Your task to perform on an android device: Open accessibility settings Image 0: 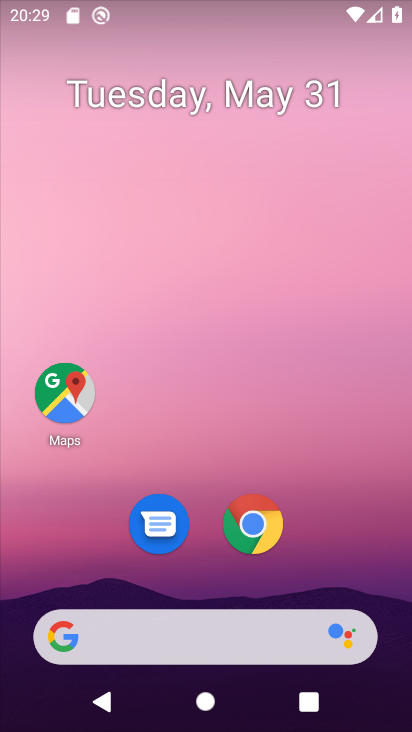
Step 0: drag from (347, 500) to (317, 0)
Your task to perform on an android device: Open accessibility settings Image 1: 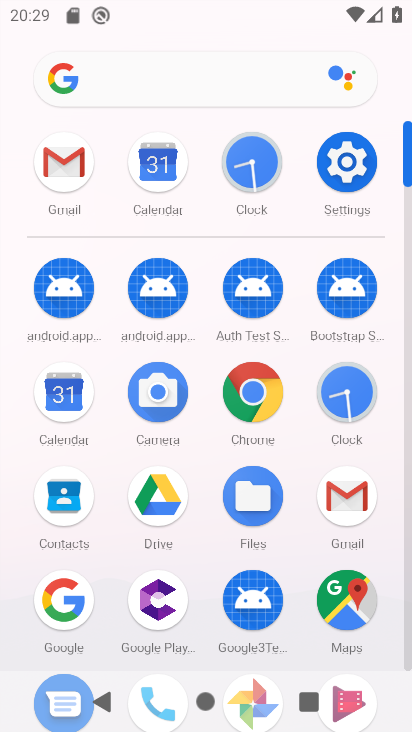
Step 1: click (354, 159)
Your task to perform on an android device: Open accessibility settings Image 2: 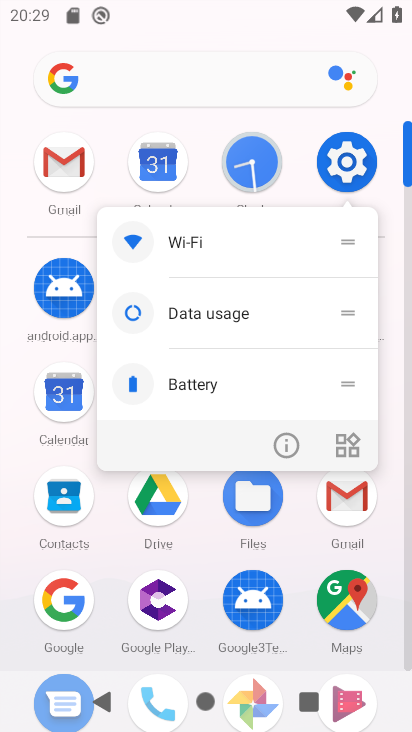
Step 2: click (354, 159)
Your task to perform on an android device: Open accessibility settings Image 3: 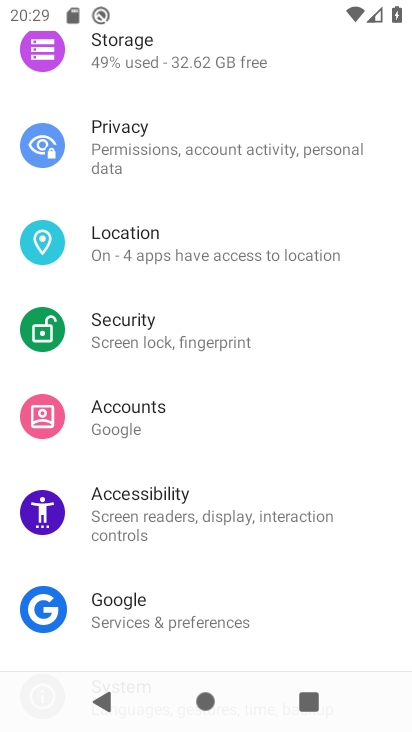
Step 3: click (184, 492)
Your task to perform on an android device: Open accessibility settings Image 4: 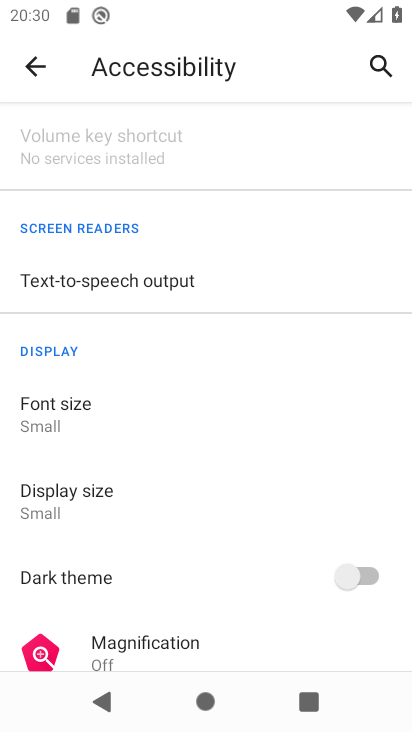
Step 4: task complete